Your task to perform on an android device: open app "TextNow: Call + Text Unlimited" (install if not already installed) and go to login screen Image 0: 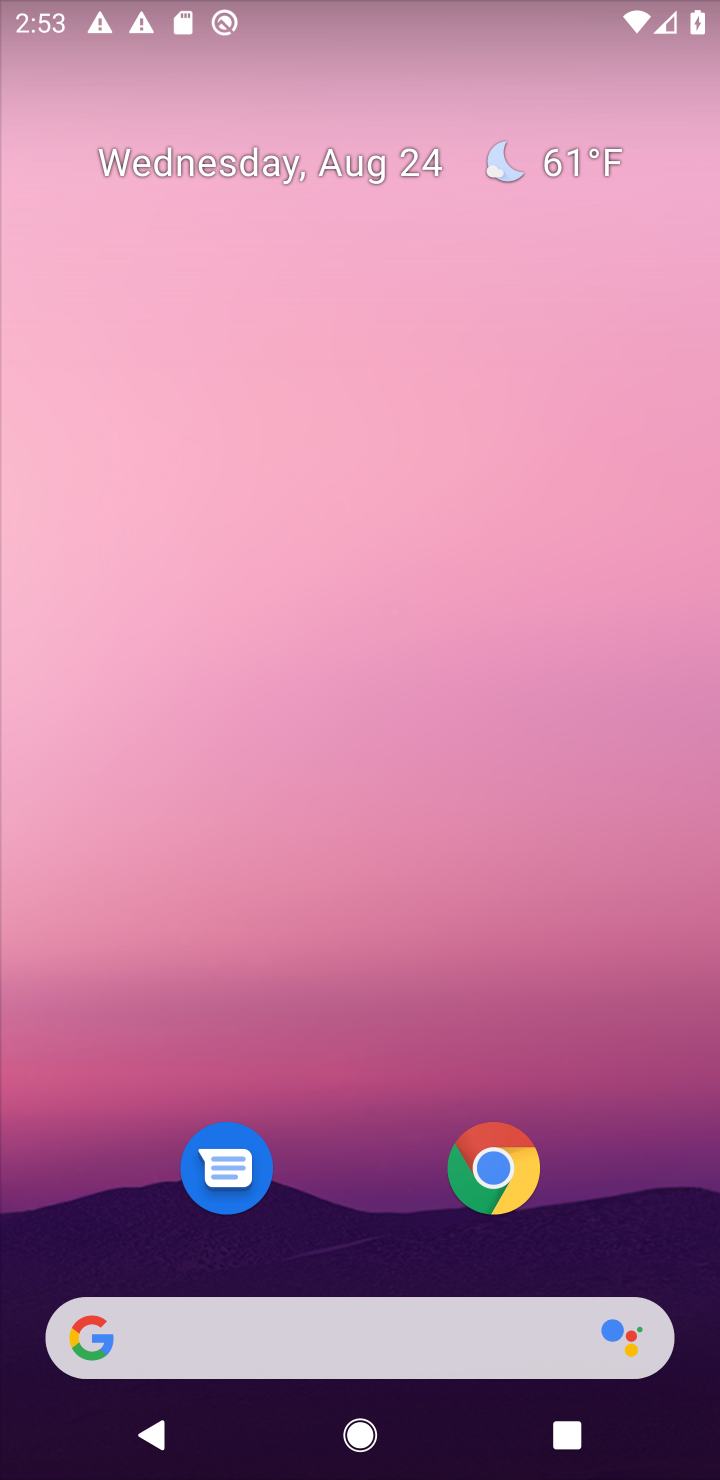
Step 0: drag from (679, 1251) to (600, 102)
Your task to perform on an android device: open app "TextNow: Call + Text Unlimited" (install if not already installed) and go to login screen Image 1: 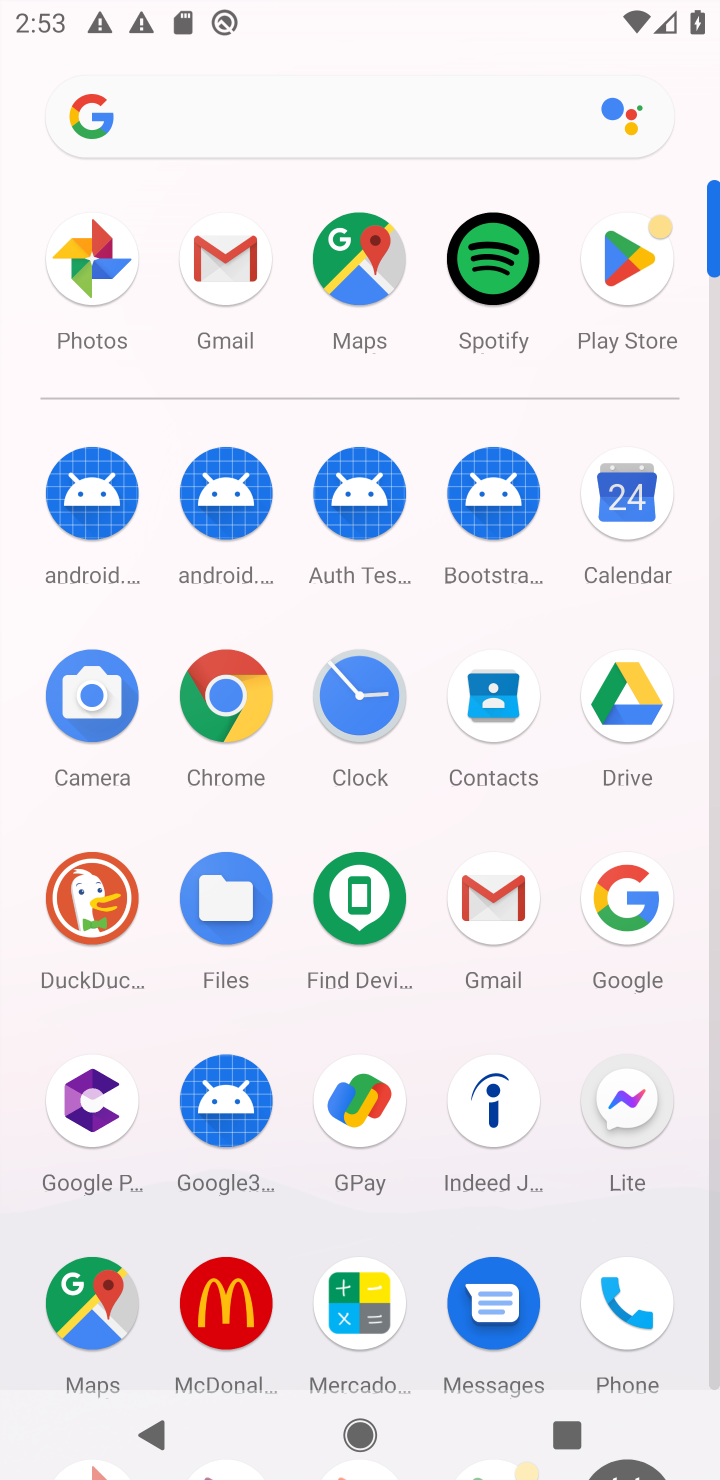
Step 1: click (718, 1320)
Your task to perform on an android device: open app "TextNow: Call + Text Unlimited" (install if not already installed) and go to login screen Image 2: 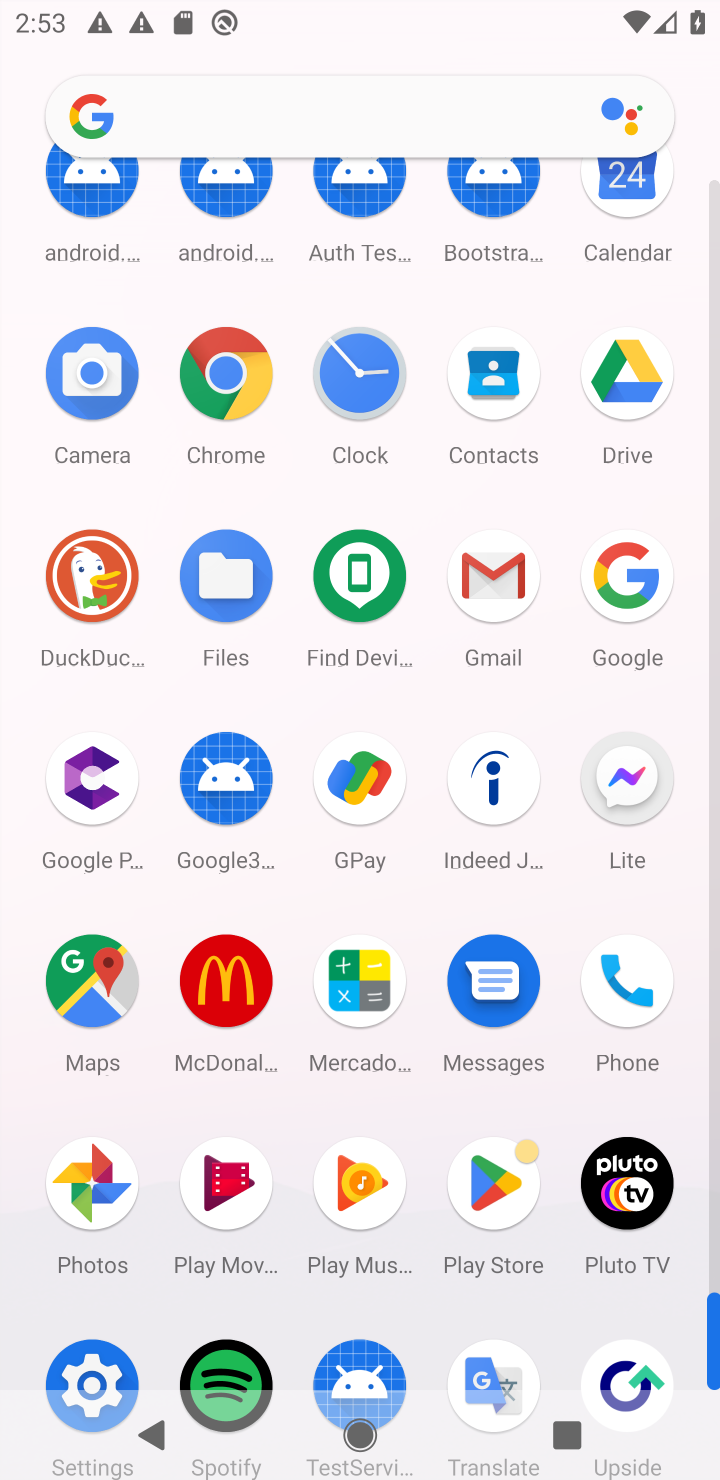
Step 2: click (493, 1184)
Your task to perform on an android device: open app "TextNow: Call + Text Unlimited" (install if not already installed) and go to login screen Image 3: 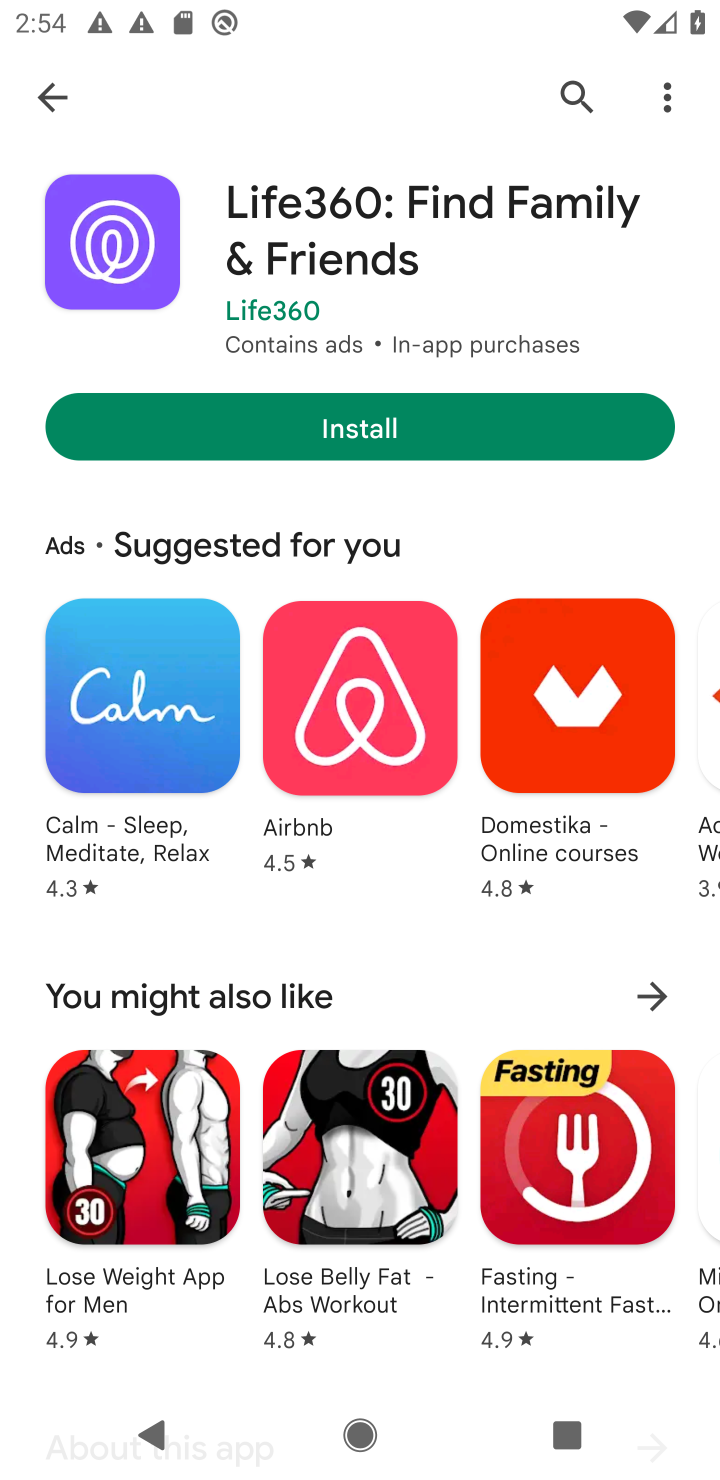
Step 3: click (577, 78)
Your task to perform on an android device: open app "TextNow: Call + Text Unlimited" (install if not already installed) and go to login screen Image 4: 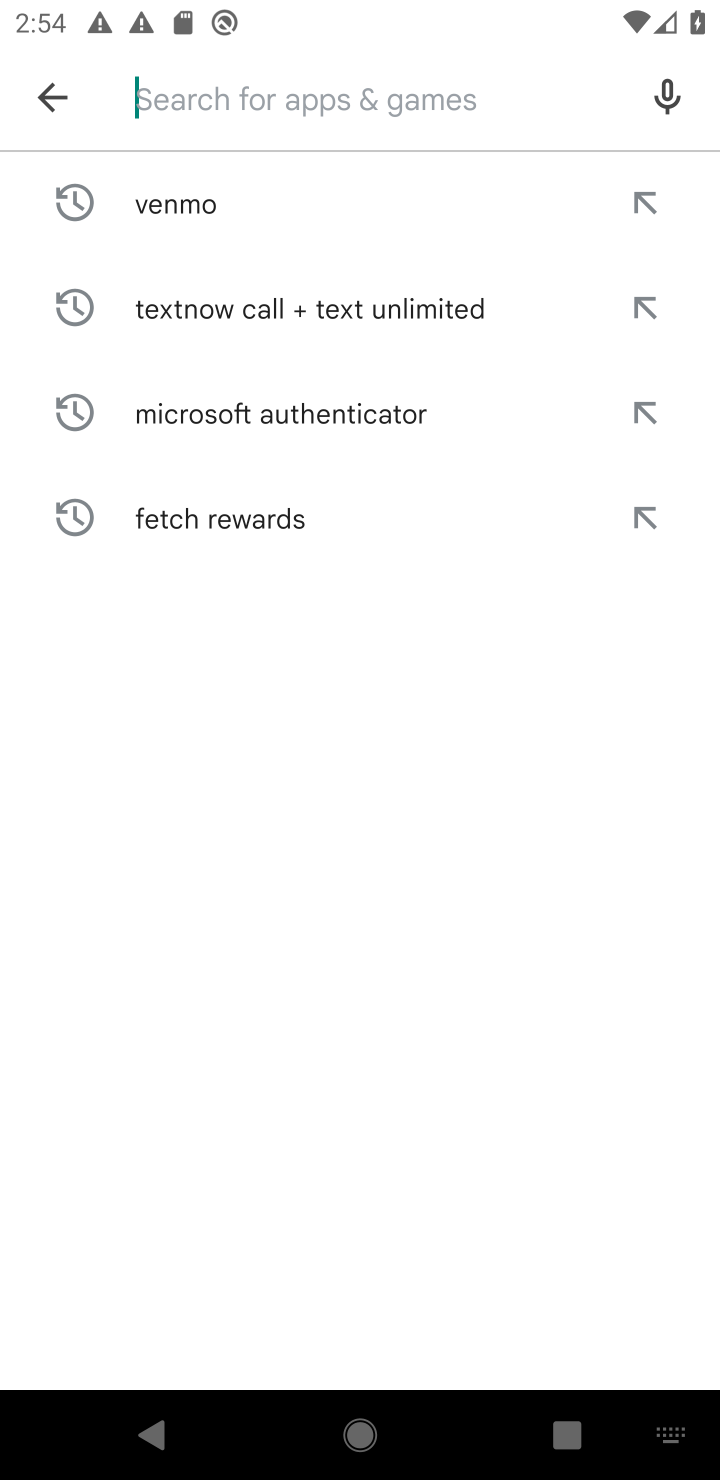
Step 4: type "TextNow: Call + Text Unlimited"
Your task to perform on an android device: open app "TextNow: Call + Text Unlimited" (install if not already installed) and go to login screen Image 5: 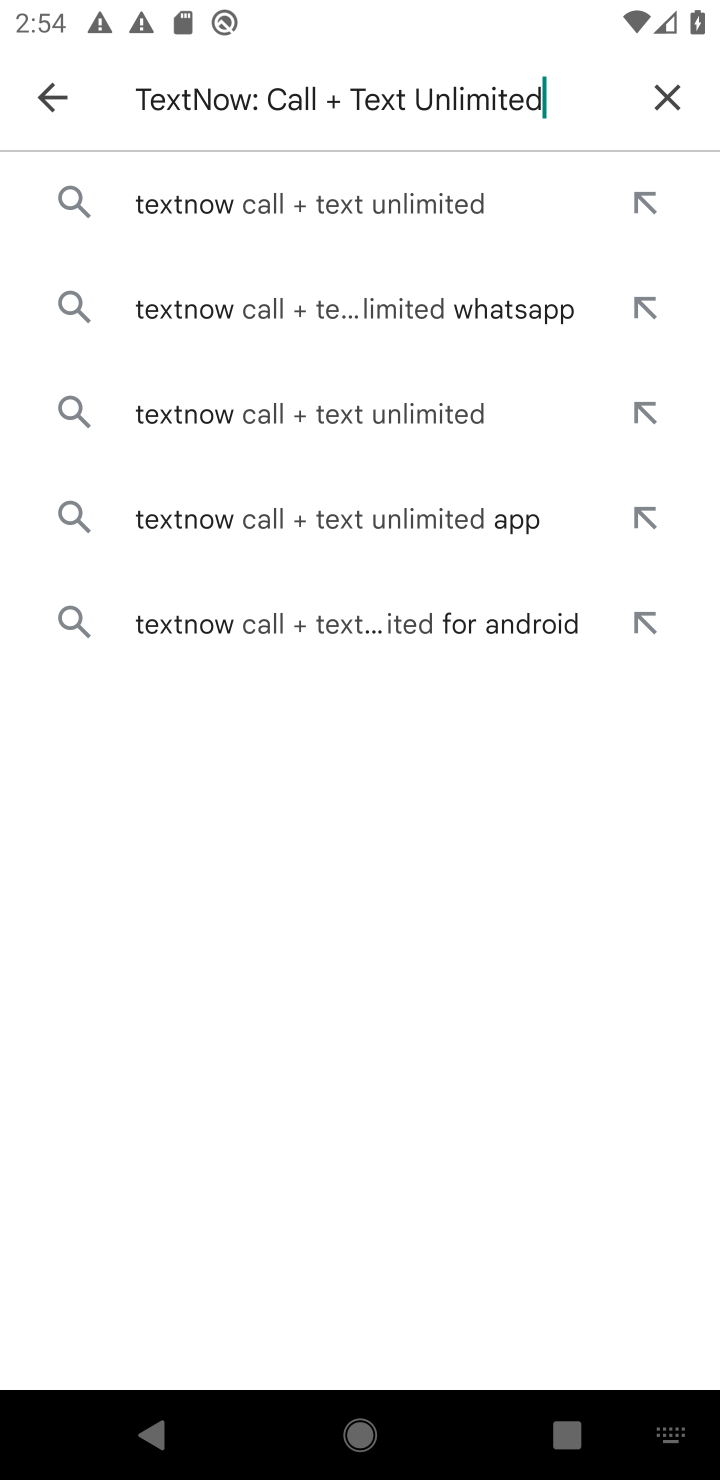
Step 5: click (186, 202)
Your task to perform on an android device: open app "TextNow: Call + Text Unlimited" (install if not already installed) and go to login screen Image 6: 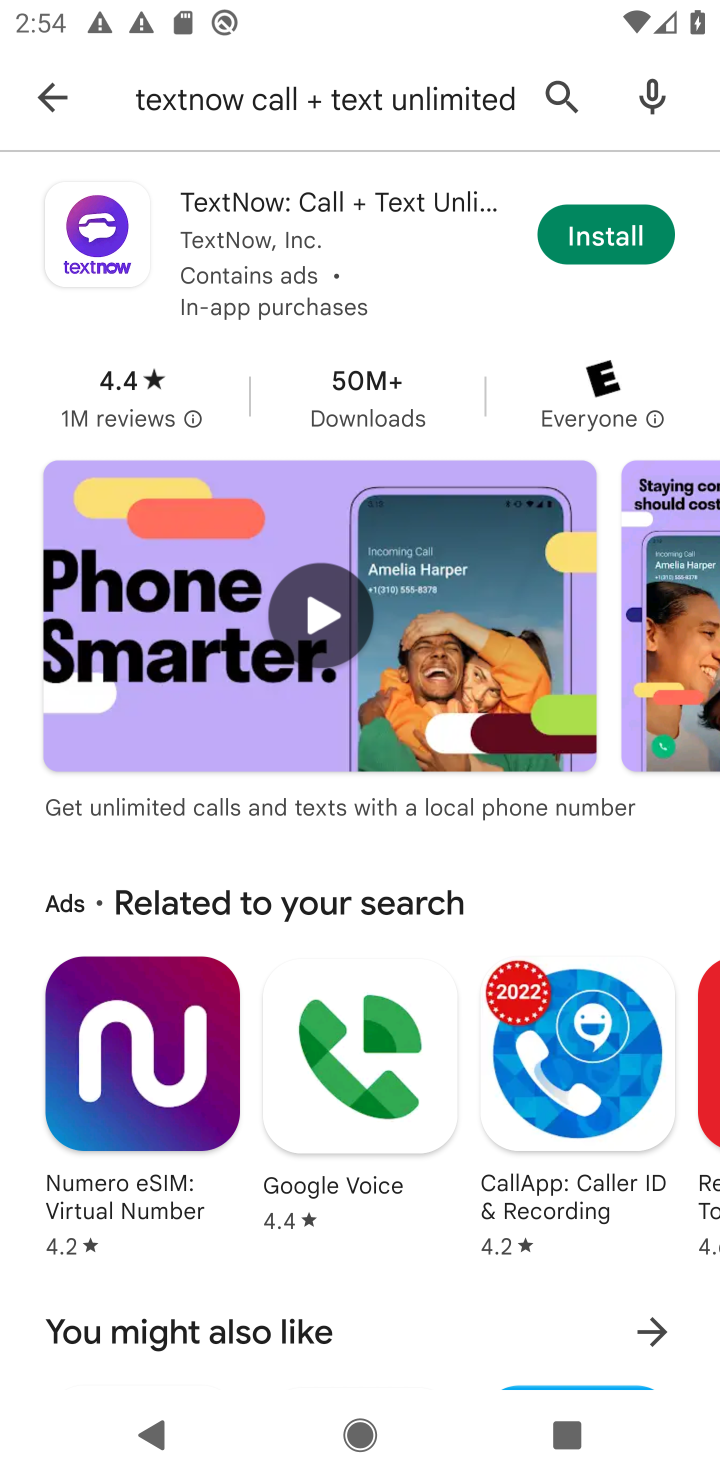
Step 6: click (213, 208)
Your task to perform on an android device: open app "TextNow: Call + Text Unlimited" (install if not already installed) and go to login screen Image 7: 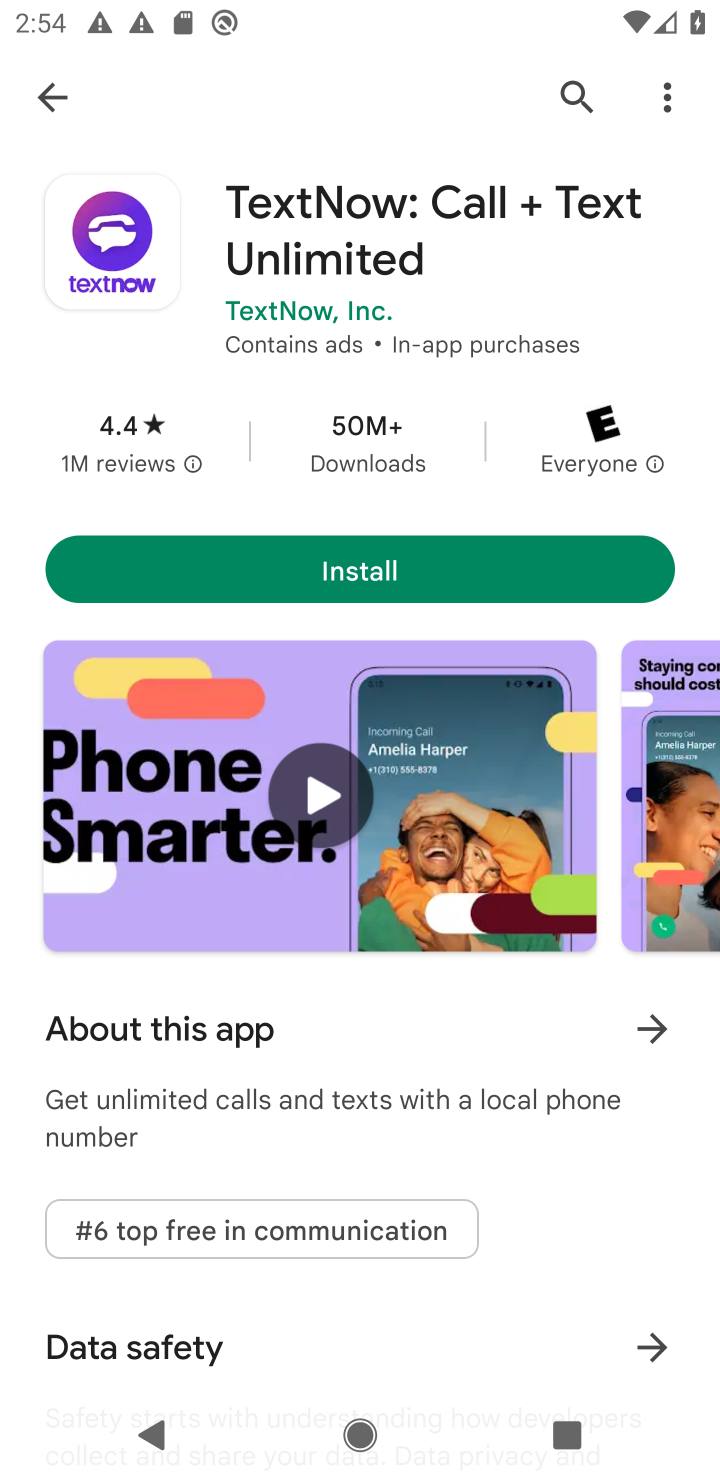
Step 7: click (359, 564)
Your task to perform on an android device: open app "TextNow: Call + Text Unlimited" (install if not already installed) and go to login screen Image 8: 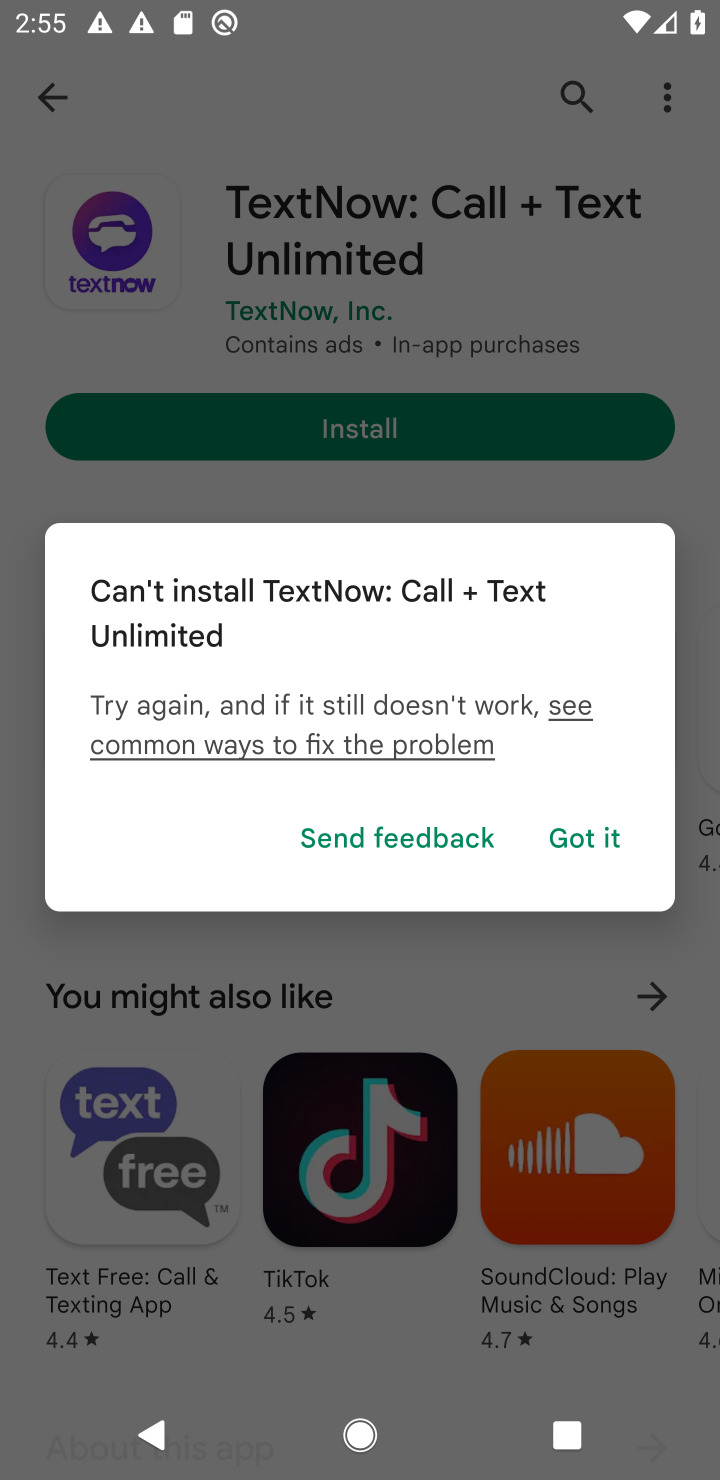
Step 8: click (572, 839)
Your task to perform on an android device: open app "TextNow: Call + Text Unlimited" (install if not already installed) and go to login screen Image 9: 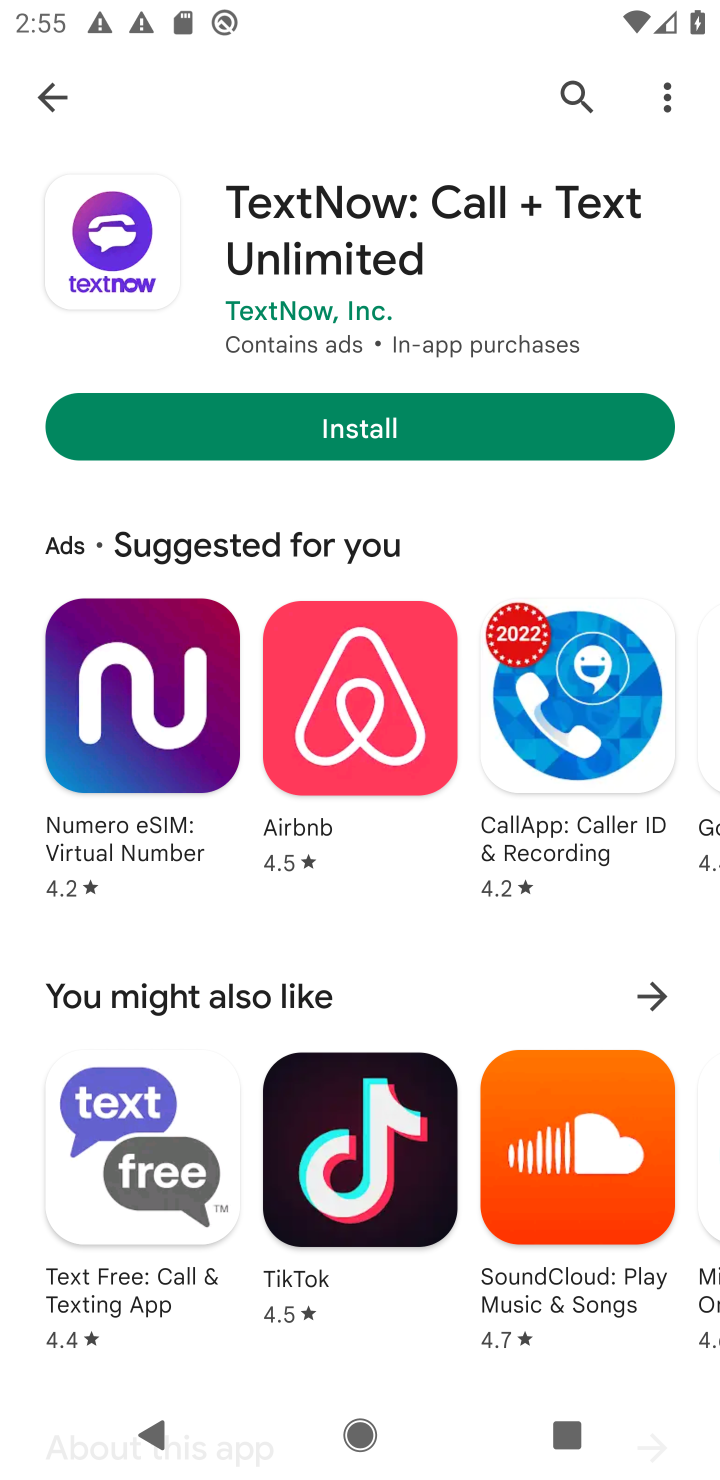
Step 9: task complete